Your task to perform on an android device: change text size in settings app Image 0: 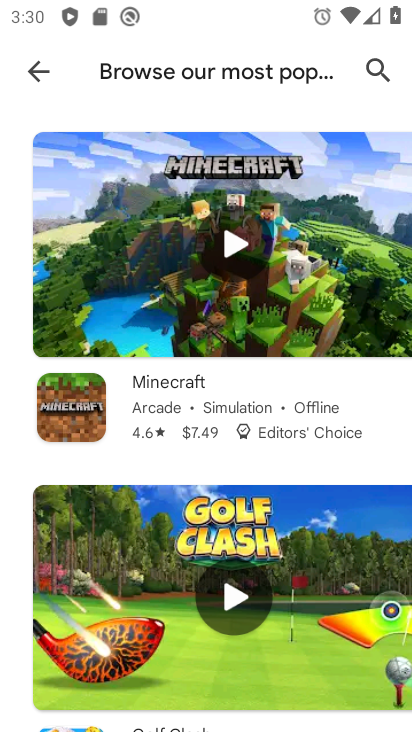
Step 0: press home button
Your task to perform on an android device: change text size in settings app Image 1: 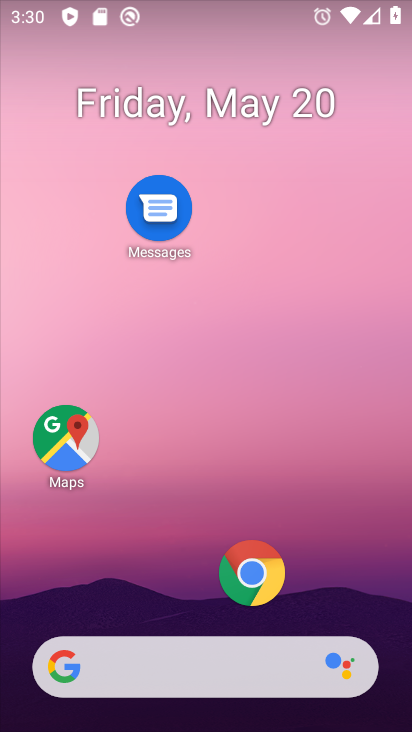
Step 1: drag from (245, 647) to (227, 21)
Your task to perform on an android device: change text size in settings app Image 2: 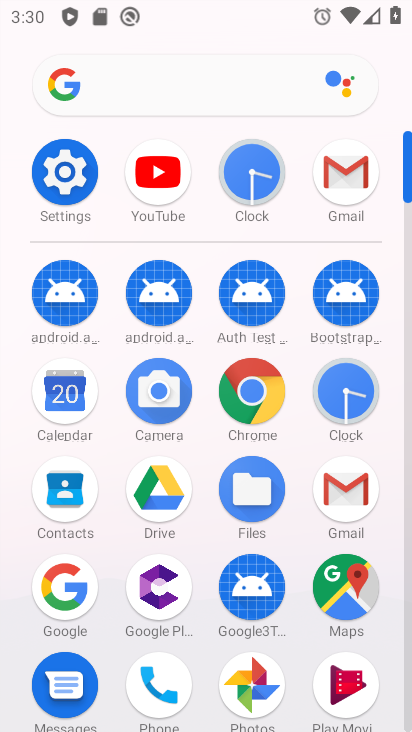
Step 2: click (65, 186)
Your task to perform on an android device: change text size in settings app Image 3: 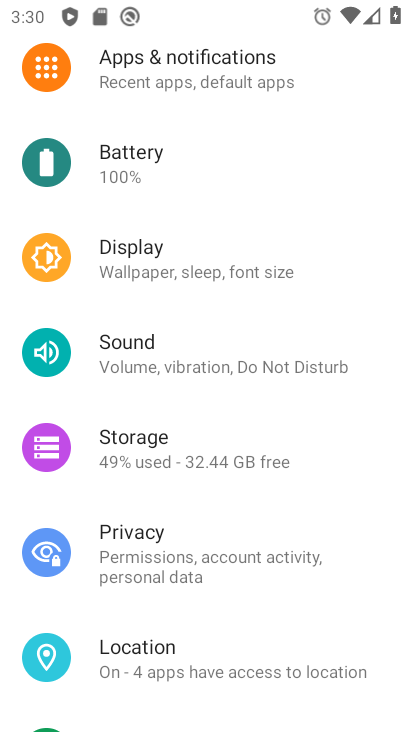
Step 3: click (151, 270)
Your task to perform on an android device: change text size in settings app Image 4: 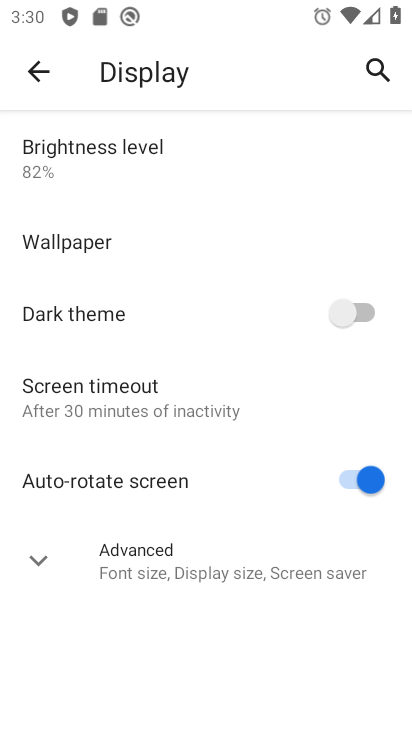
Step 4: click (158, 561)
Your task to perform on an android device: change text size in settings app Image 5: 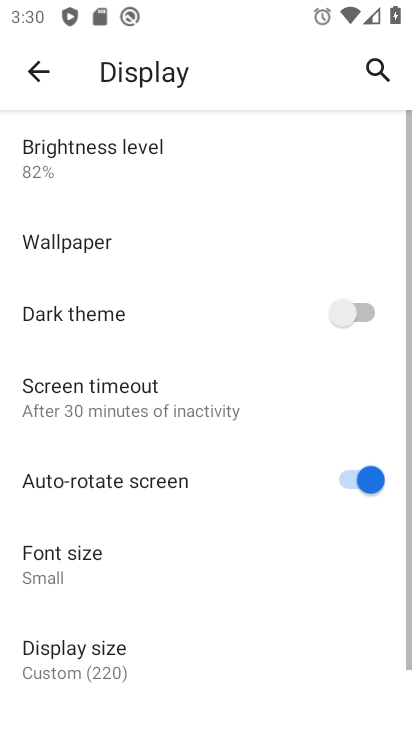
Step 5: click (55, 568)
Your task to perform on an android device: change text size in settings app Image 6: 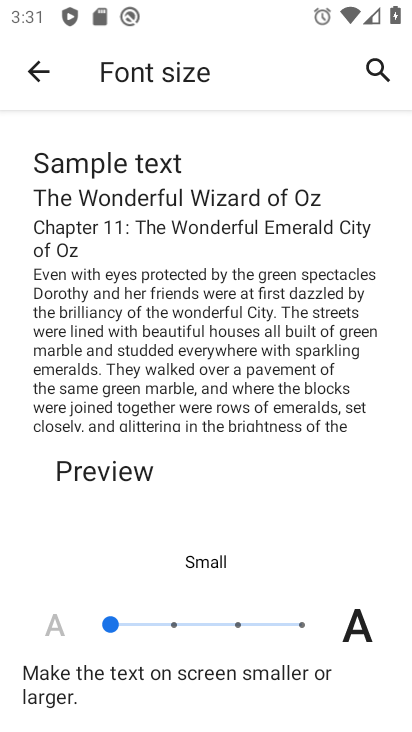
Step 6: click (172, 618)
Your task to perform on an android device: change text size in settings app Image 7: 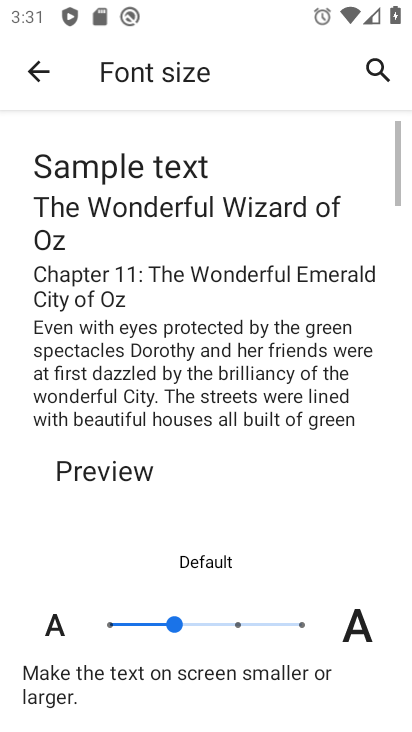
Step 7: task complete